Your task to perform on an android device: Clear all items from cart on target.com. Search for "lenovo thinkpad" on target.com, select the first entry, add it to the cart, then select checkout. Image 0: 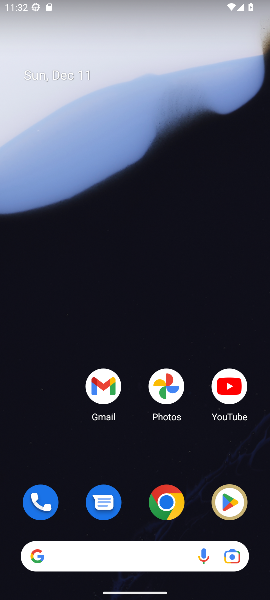
Step 0: click (142, 554)
Your task to perform on an android device: Clear all items from cart on target.com. Search for "lenovo thinkpad" on target.com, select the first entry, add it to the cart, then select checkout. Image 1: 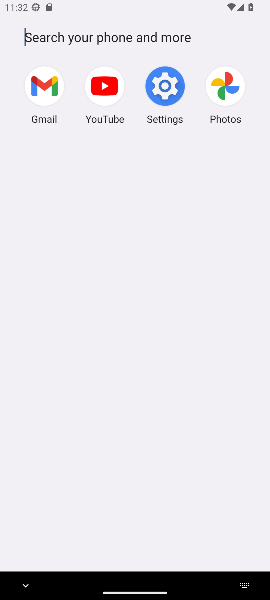
Step 1: type "target"
Your task to perform on an android device: Clear all items from cart on target.com. Search for "lenovo thinkpad" on target.com, select the first entry, add it to the cart, then select checkout. Image 2: 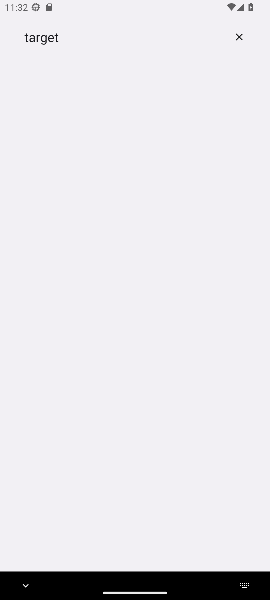
Step 2: press home button
Your task to perform on an android device: Clear all items from cart on target.com. Search for "lenovo thinkpad" on target.com, select the first entry, add it to the cart, then select checkout. Image 3: 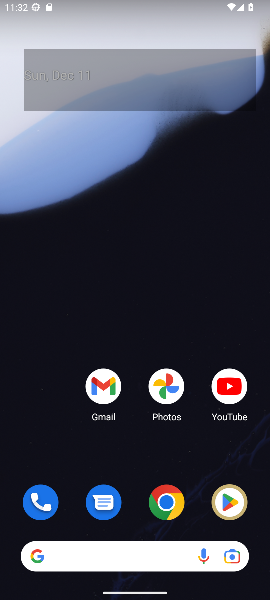
Step 3: click (174, 503)
Your task to perform on an android device: Clear all items from cart on target.com. Search for "lenovo thinkpad" on target.com, select the first entry, add it to the cart, then select checkout. Image 4: 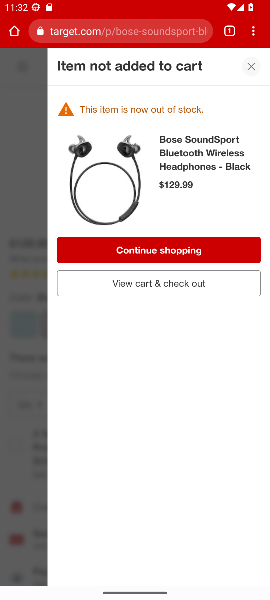
Step 4: click (247, 67)
Your task to perform on an android device: Clear all items from cart on target.com. Search for "lenovo thinkpad" on target.com, select the first entry, add it to the cart, then select checkout. Image 5: 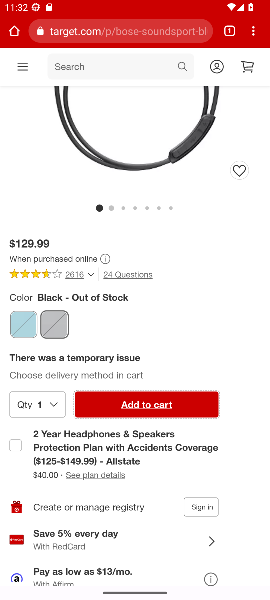
Step 5: click (96, 64)
Your task to perform on an android device: Clear all items from cart on target.com. Search for "lenovo thinkpad" on target.com, select the first entry, add it to the cart, then select checkout. Image 6: 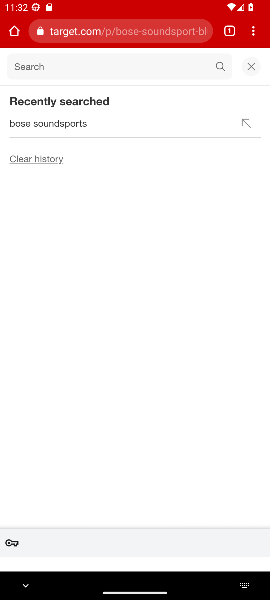
Step 6: type "lenovo thinkpad"
Your task to perform on an android device: Clear all items from cart on target.com. Search for "lenovo thinkpad" on target.com, select the first entry, add it to the cart, then select checkout. Image 7: 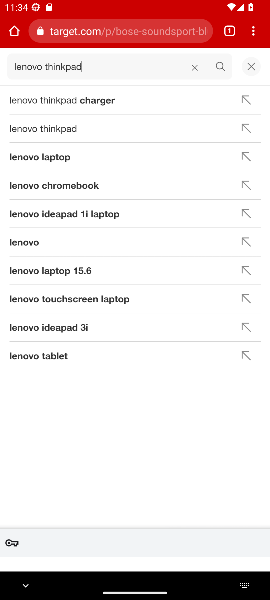
Step 7: click (221, 65)
Your task to perform on an android device: Clear all items from cart on target.com. Search for "lenovo thinkpad" on target.com, select the first entry, add it to the cart, then select checkout. Image 8: 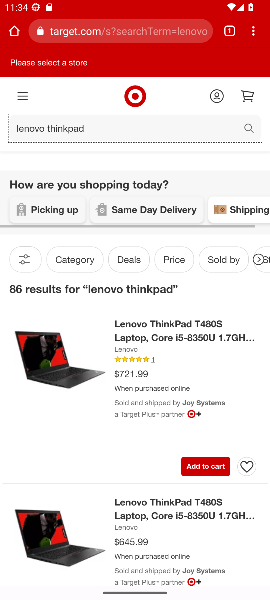
Step 8: click (205, 476)
Your task to perform on an android device: Clear all items from cart on target.com. Search for "lenovo thinkpad" on target.com, select the first entry, add it to the cart, then select checkout. Image 9: 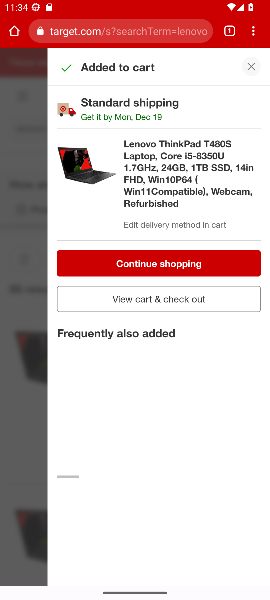
Step 9: task complete